Your task to perform on an android device: Open Amazon Image 0: 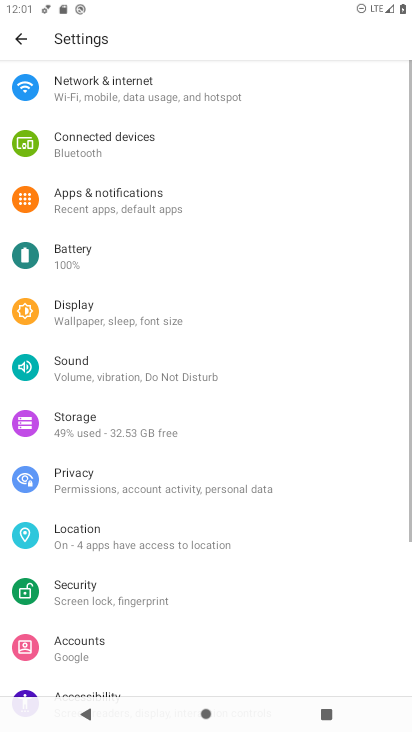
Step 0: press home button
Your task to perform on an android device: Open Amazon Image 1: 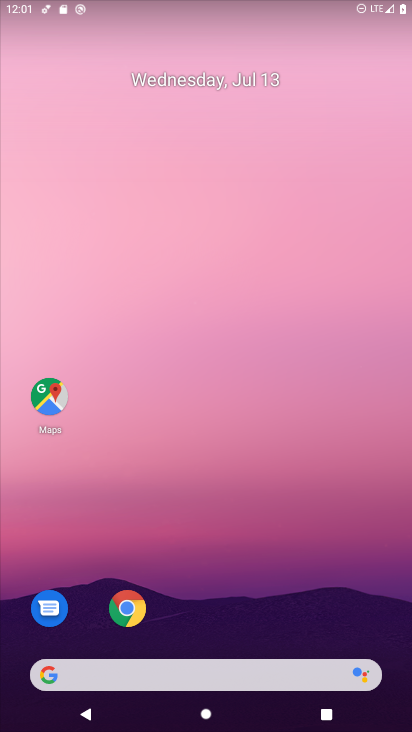
Step 1: click (125, 615)
Your task to perform on an android device: Open Amazon Image 2: 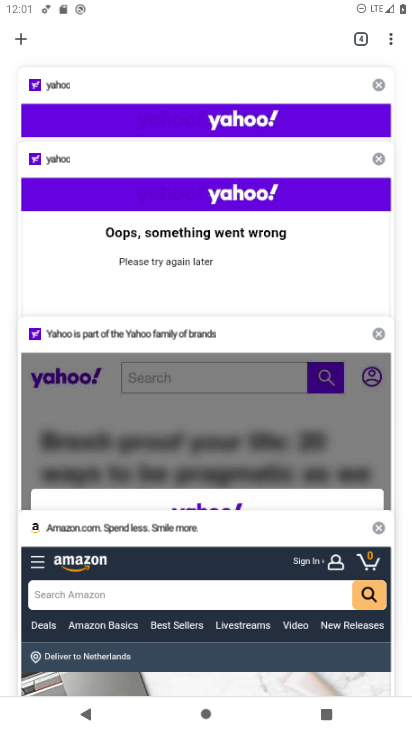
Step 2: click (25, 37)
Your task to perform on an android device: Open Amazon Image 3: 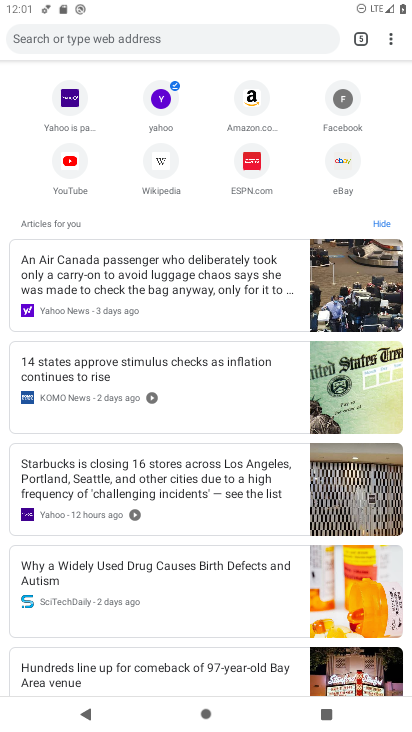
Step 3: click (252, 108)
Your task to perform on an android device: Open Amazon Image 4: 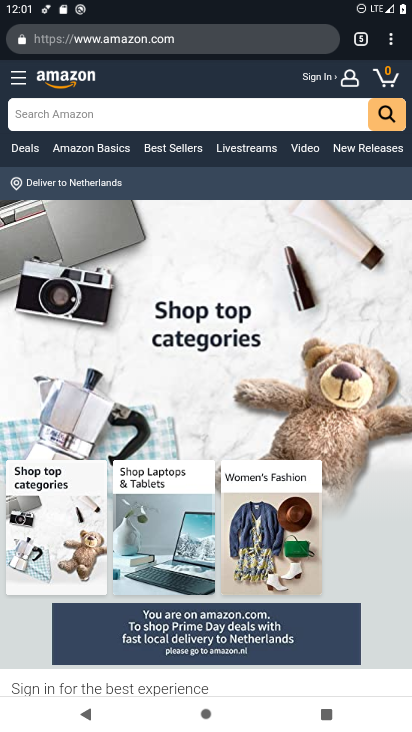
Step 4: task complete